Your task to perform on an android device: open app "Move to iOS" (install if not already installed), go to login, and select forgot password Image 0: 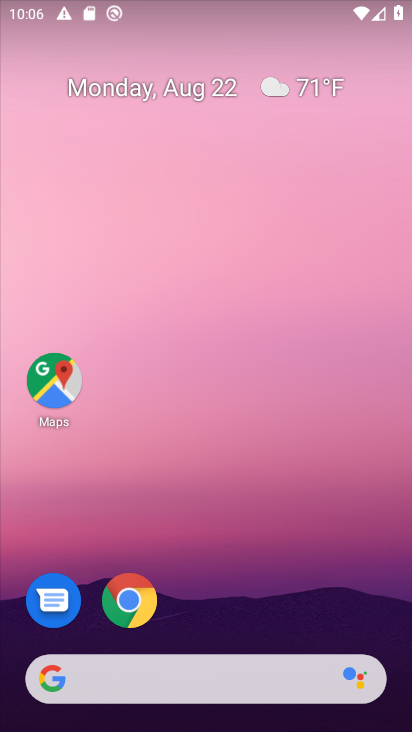
Step 0: drag from (212, 560) to (217, 170)
Your task to perform on an android device: open app "Move to iOS" (install if not already installed), go to login, and select forgot password Image 1: 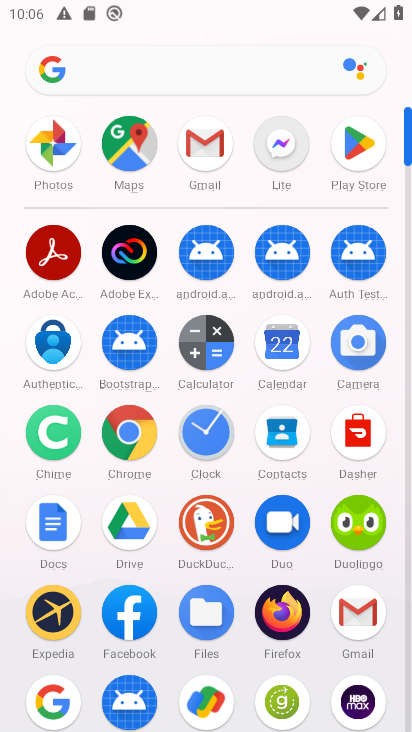
Step 1: click (362, 153)
Your task to perform on an android device: open app "Move to iOS" (install if not already installed), go to login, and select forgot password Image 2: 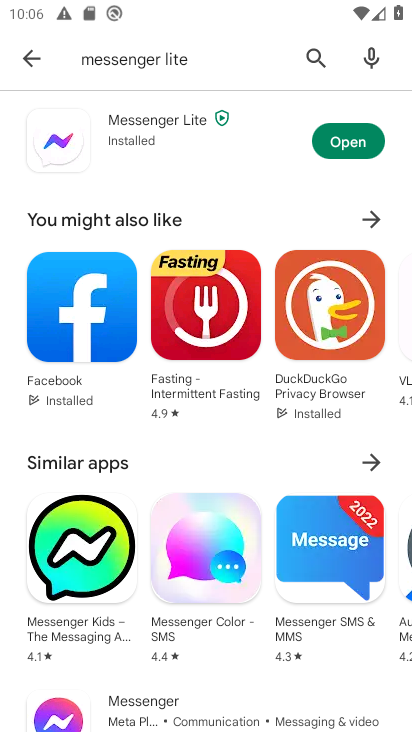
Step 2: click (309, 56)
Your task to perform on an android device: open app "Move to iOS" (install if not already installed), go to login, and select forgot password Image 3: 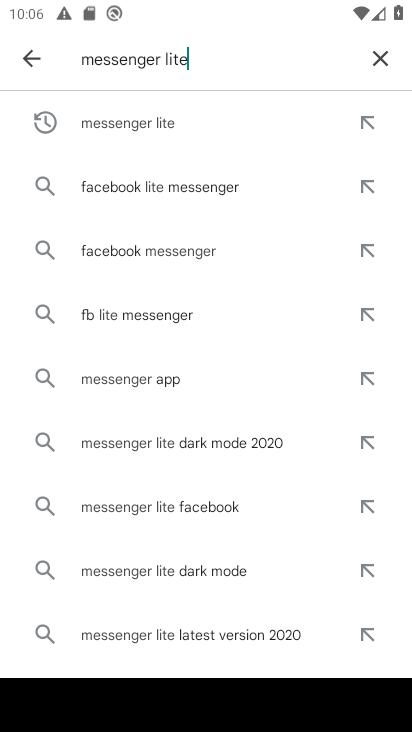
Step 3: click (387, 60)
Your task to perform on an android device: open app "Move to iOS" (install if not already installed), go to login, and select forgot password Image 4: 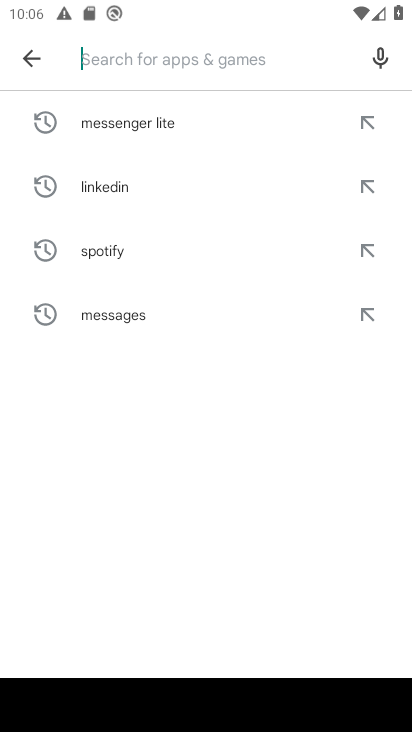
Step 4: type "Move to iOS"
Your task to perform on an android device: open app "Move to iOS" (install if not already installed), go to login, and select forgot password Image 5: 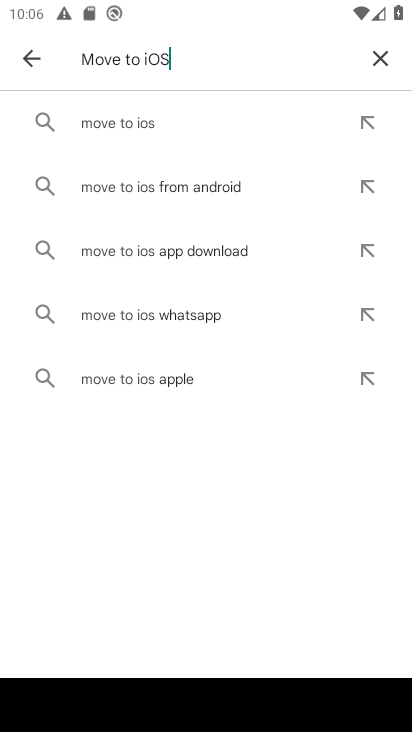
Step 5: click (204, 113)
Your task to perform on an android device: open app "Move to iOS" (install if not already installed), go to login, and select forgot password Image 6: 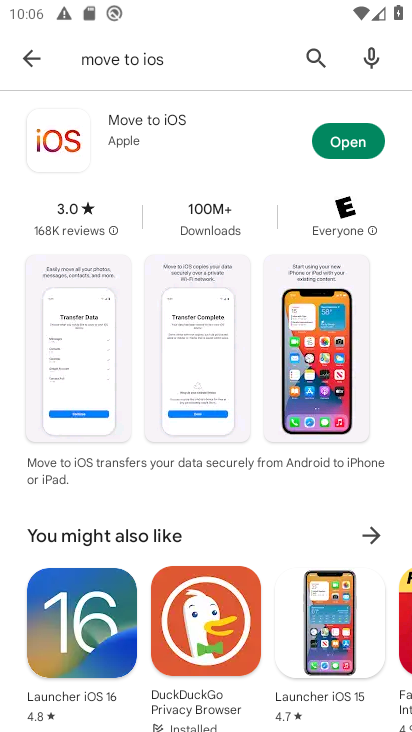
Step 6: click (329, 134)
Your task to perform on an android device: open app "Move to iOS" (install if not already installed), go to login, and select forgot password Image 7: 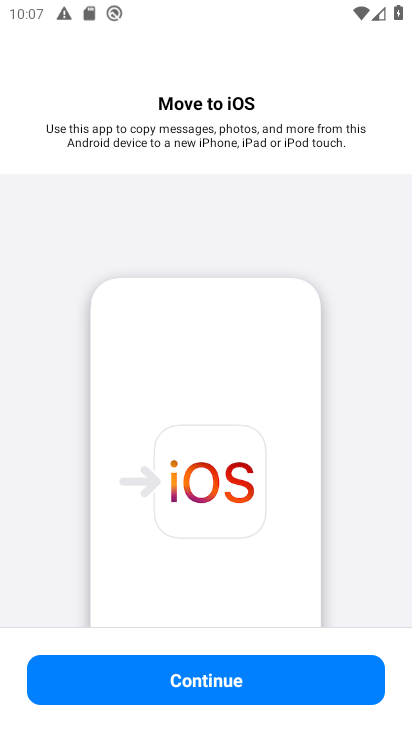
Step 7: click (199, 667)
Your task to perform on an android device: open app "Move to iOS" (install if not already installed), go to login, and select forgot password Image 8: 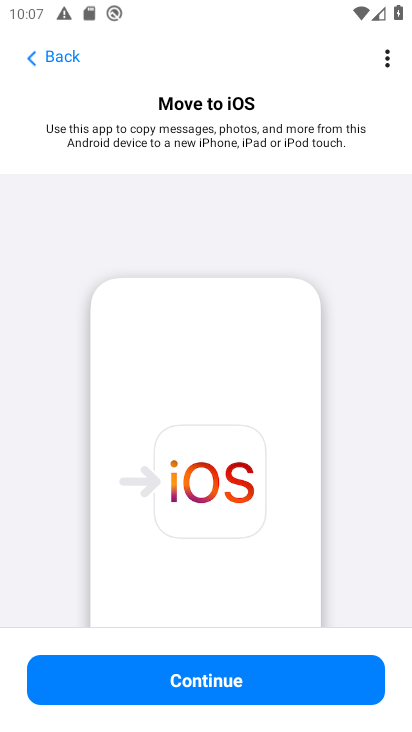
Step 8: task complete